Your task to perform on an android device: open app "Grab" (install if not already installed) Image 0: 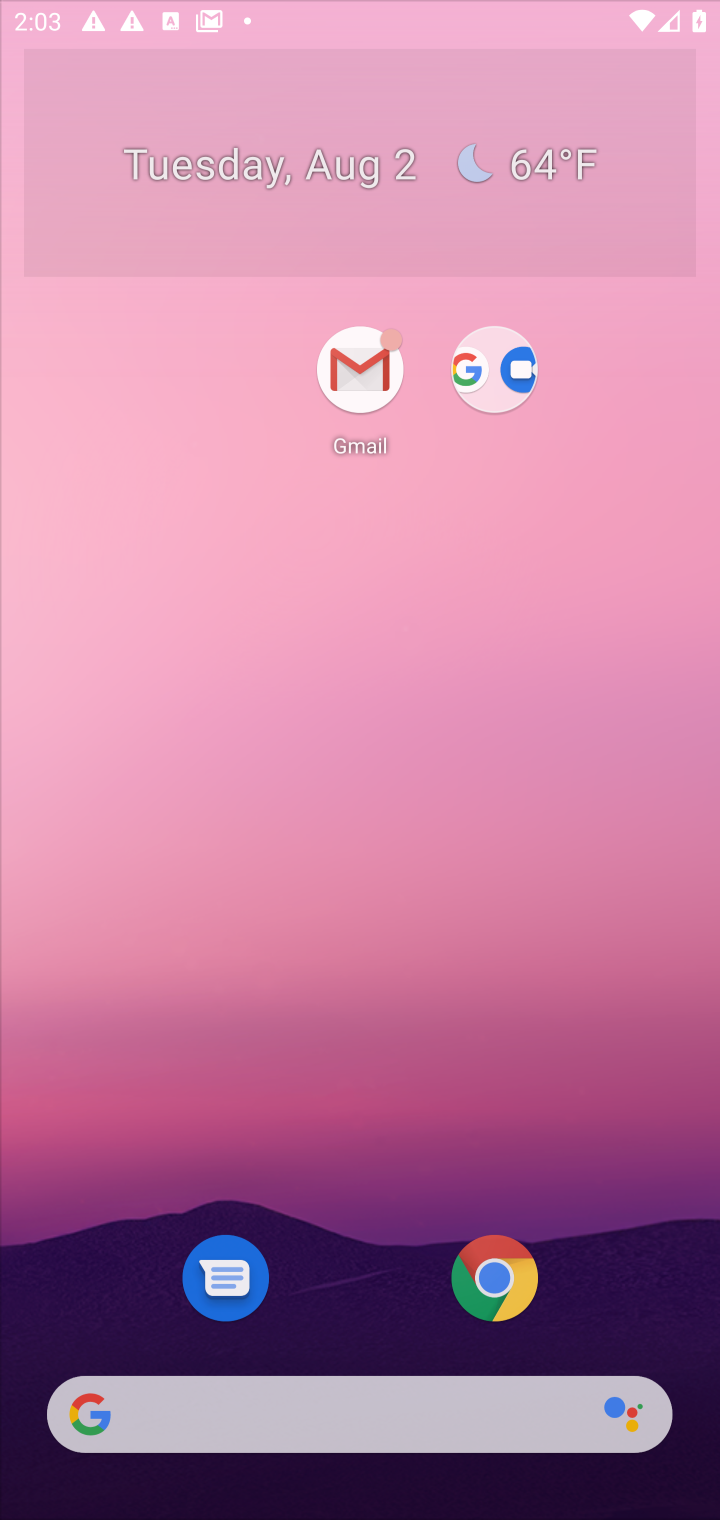
Step 0: press home button
Your task to perform on an android device: open app "Grab" (install if not already installed) Image 1: 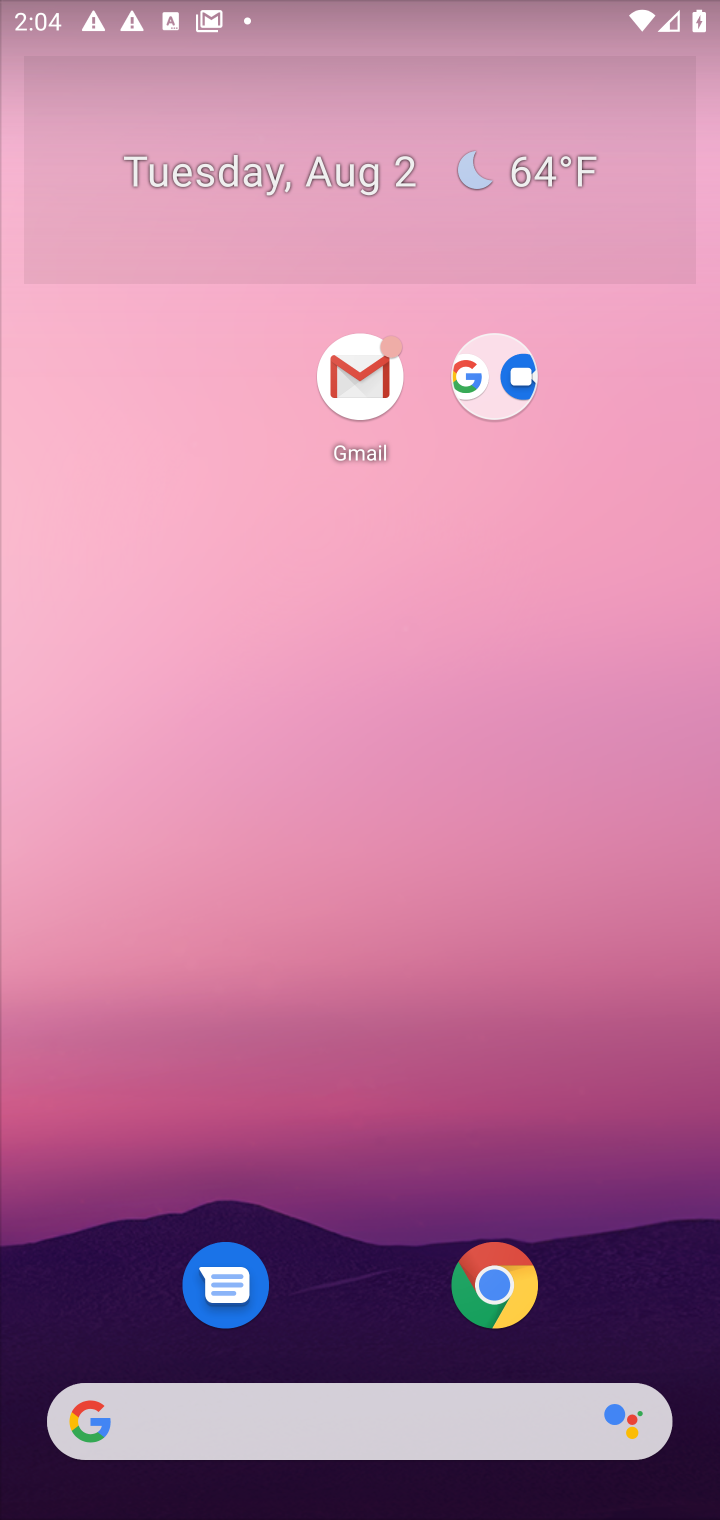
Step 1: click (456, 18)
Your task to perform on an android device: open app "Grab" (install if not already installed) Image 2: 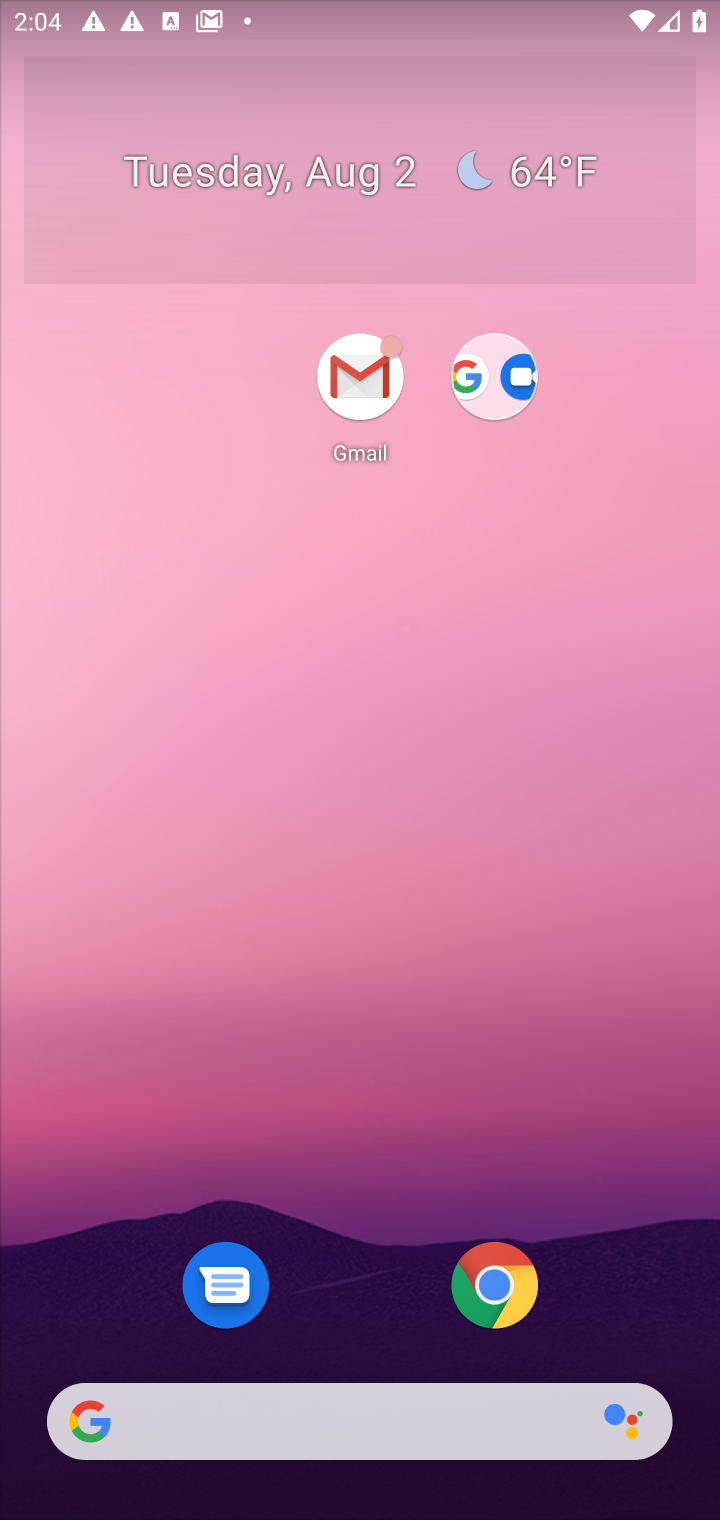
Step 2: drag from (409, 1105) to (405, 306)
Your task to perform on an android device: open app "Grab" (install if not already installed) Image 3: 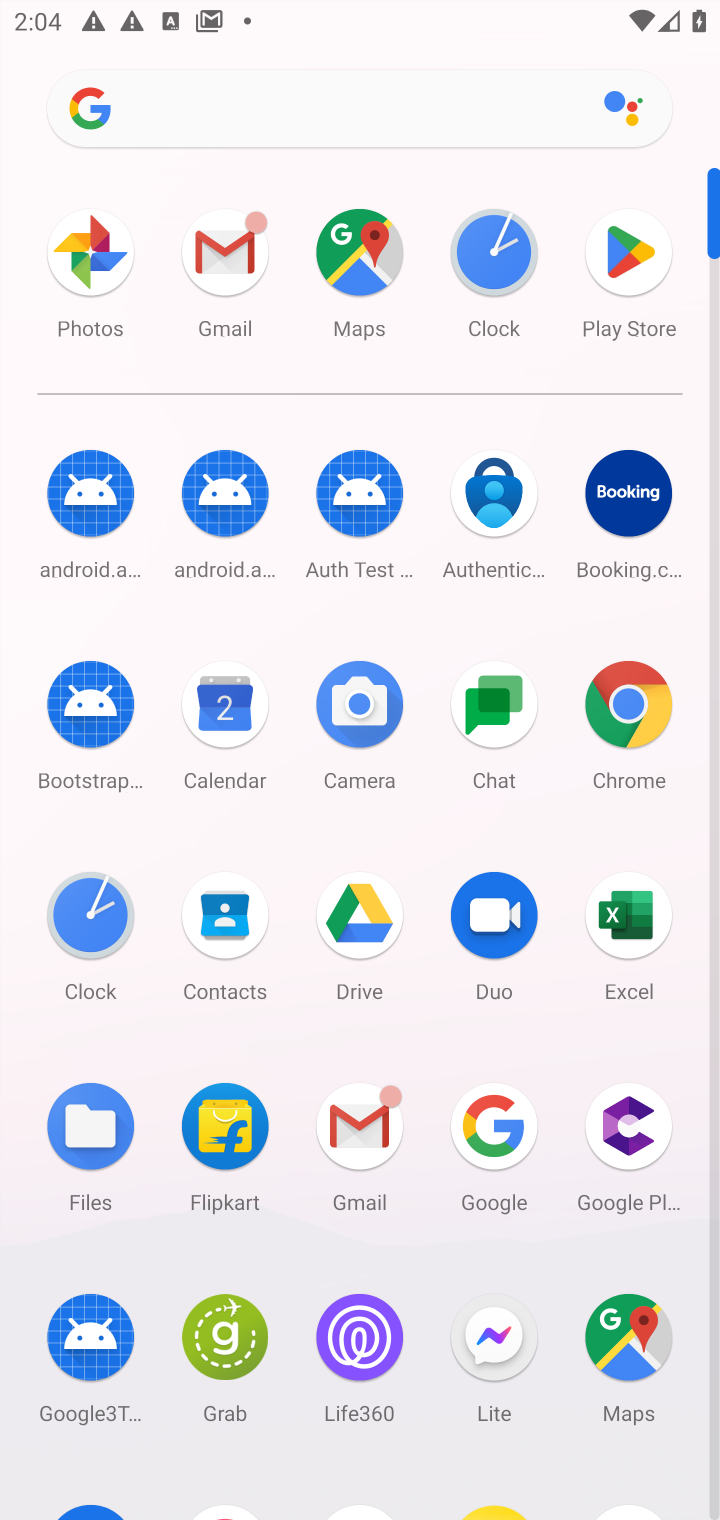
Step 3: drag from (409, 1241) to (409, 551)
Your task to perform on an android device: open app "Grab" (install if not already installed) Image 4: 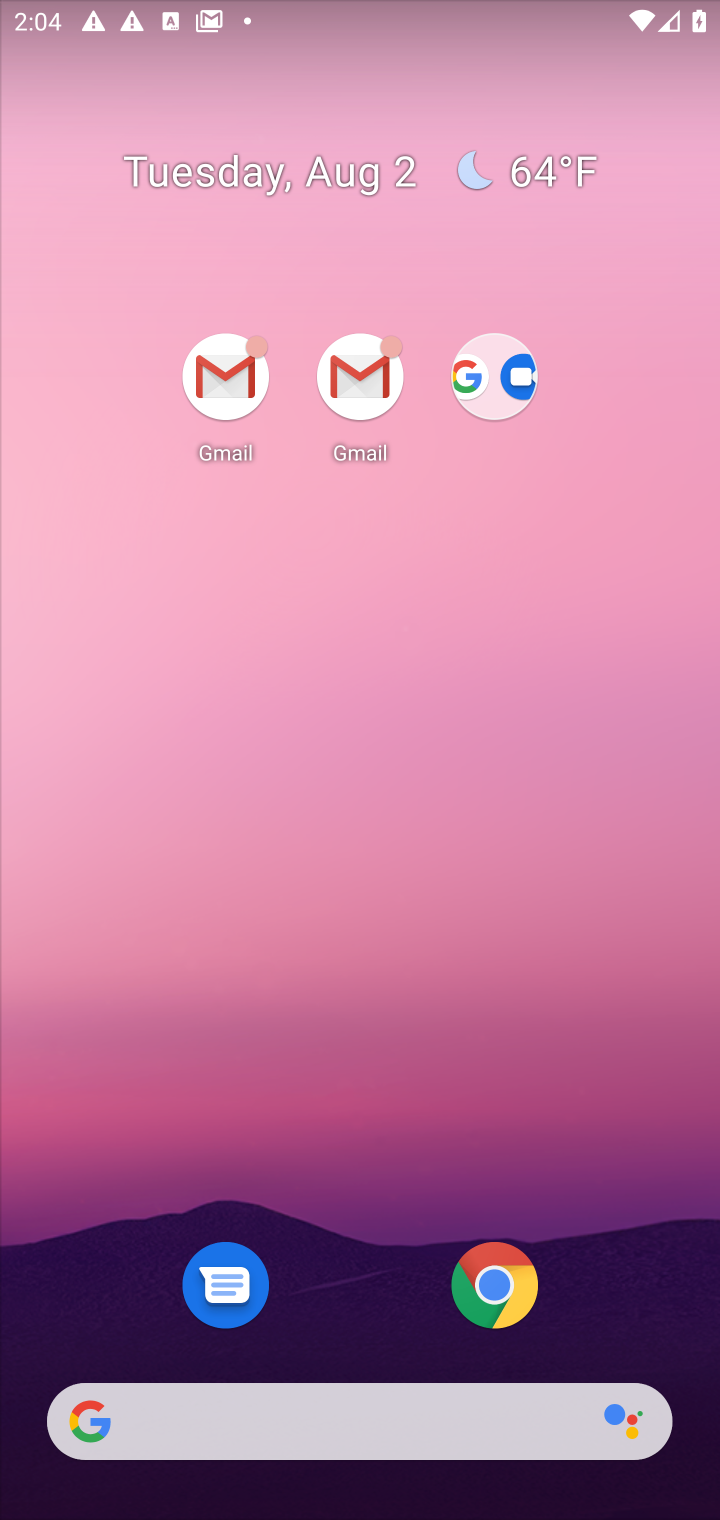
Step 4: drag from (463, 963) to (475, 50)
Your task to perform on an android device: open app "Grab" (install if not already installed) Image 5: 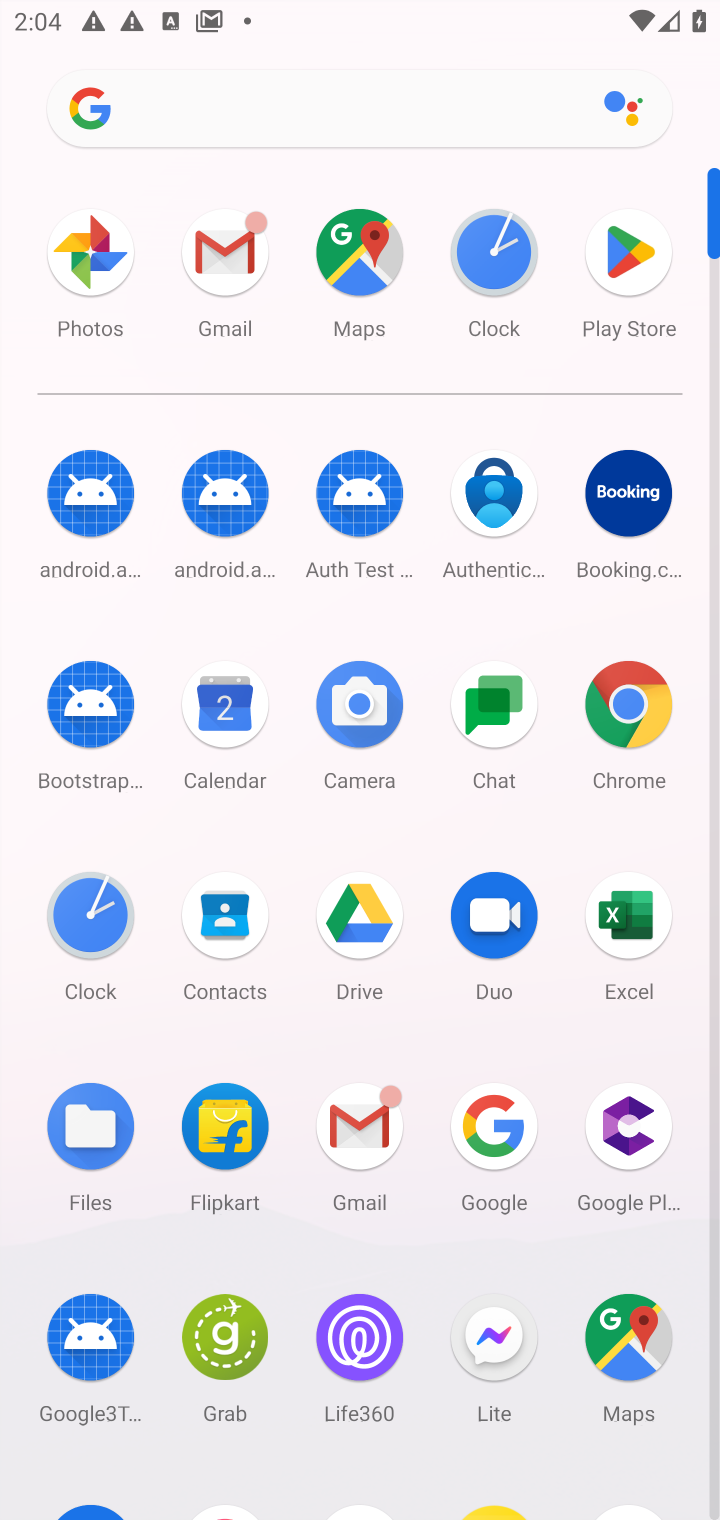
Step 5: drag from (451, 1046) to (406, 286)
Your task to perform on an android device: open app "Grab" (install if not already installed) Image 6: 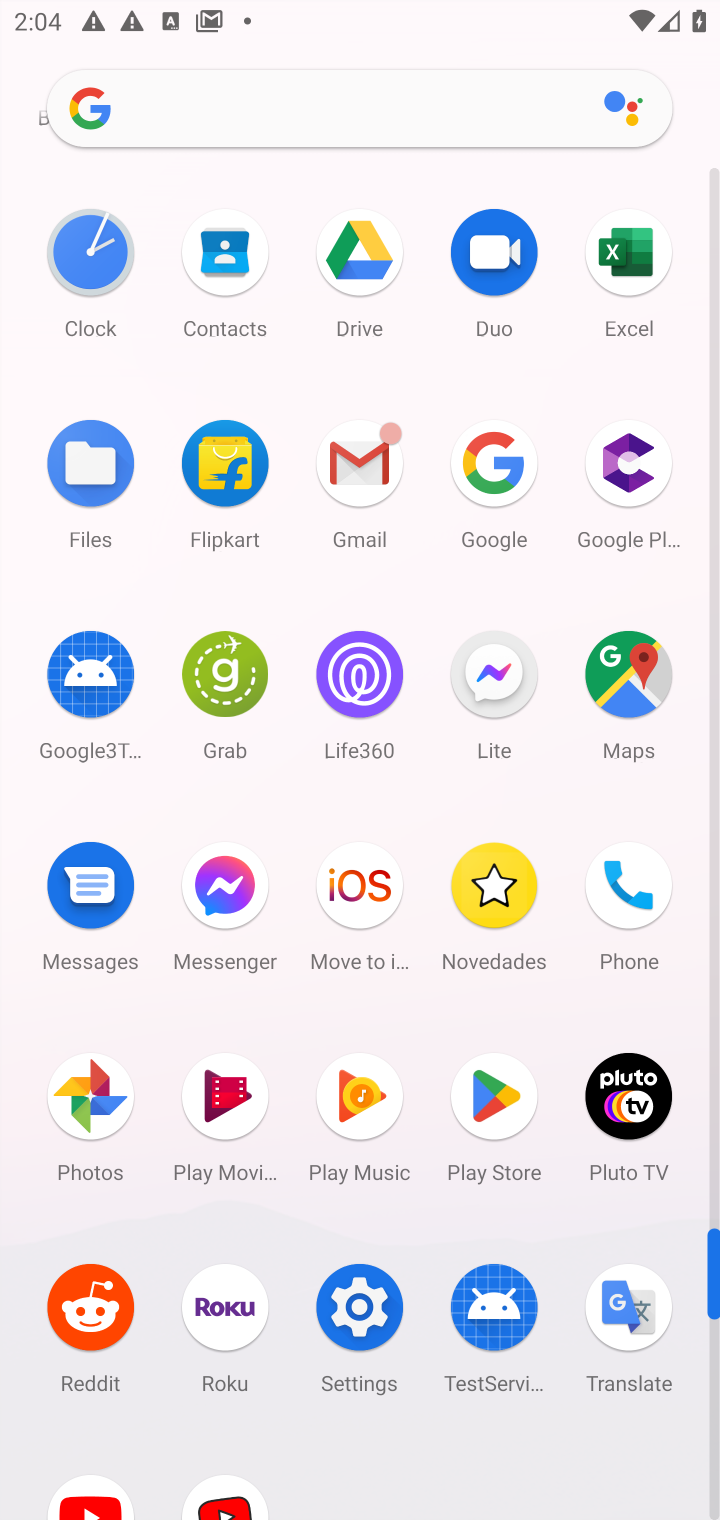
Step 6: click (483, 1097)
Your task to perform on an android device: open app "Grab" (install if not already installed) Image 7: 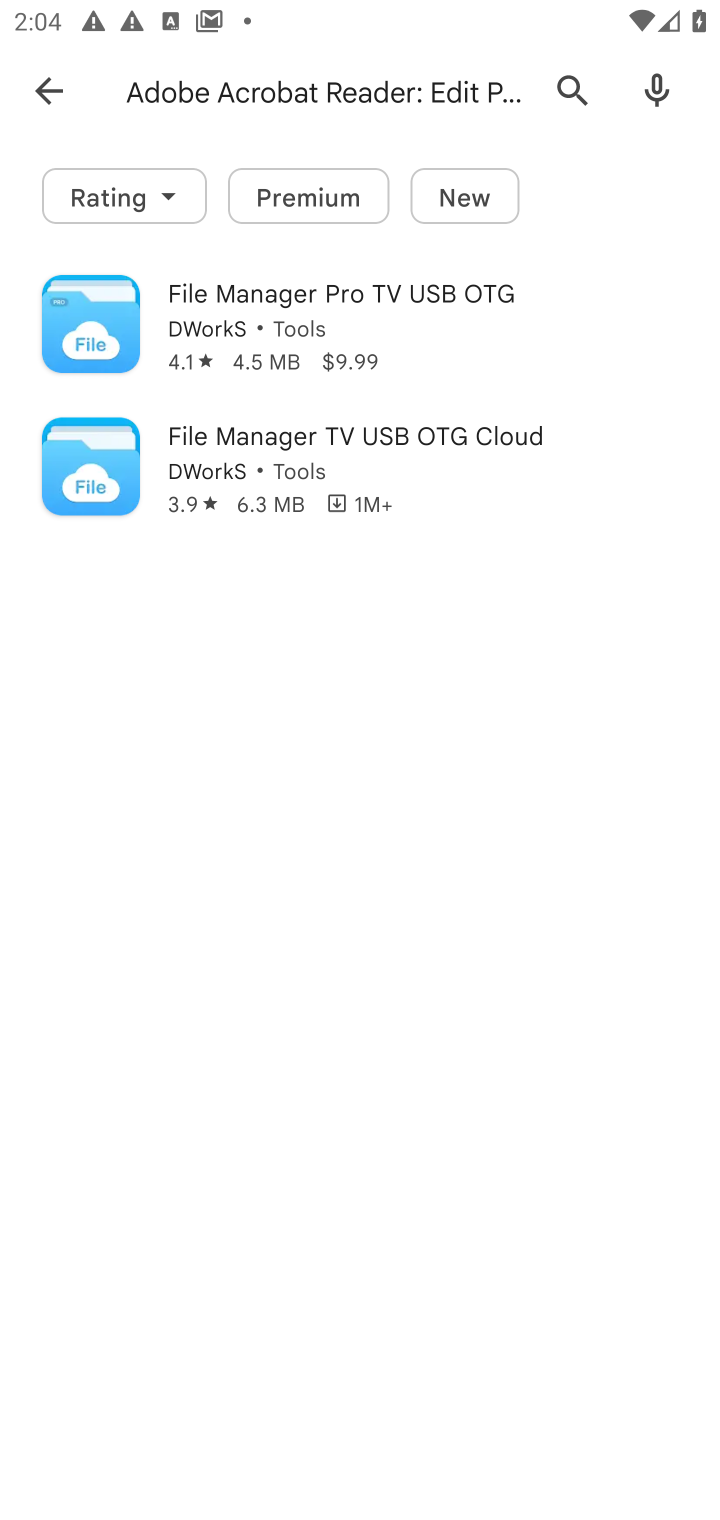
Step 7: click (447, 93)
Your task to perform on an android device: open app "Grab" (install if not already installed) Image 8: 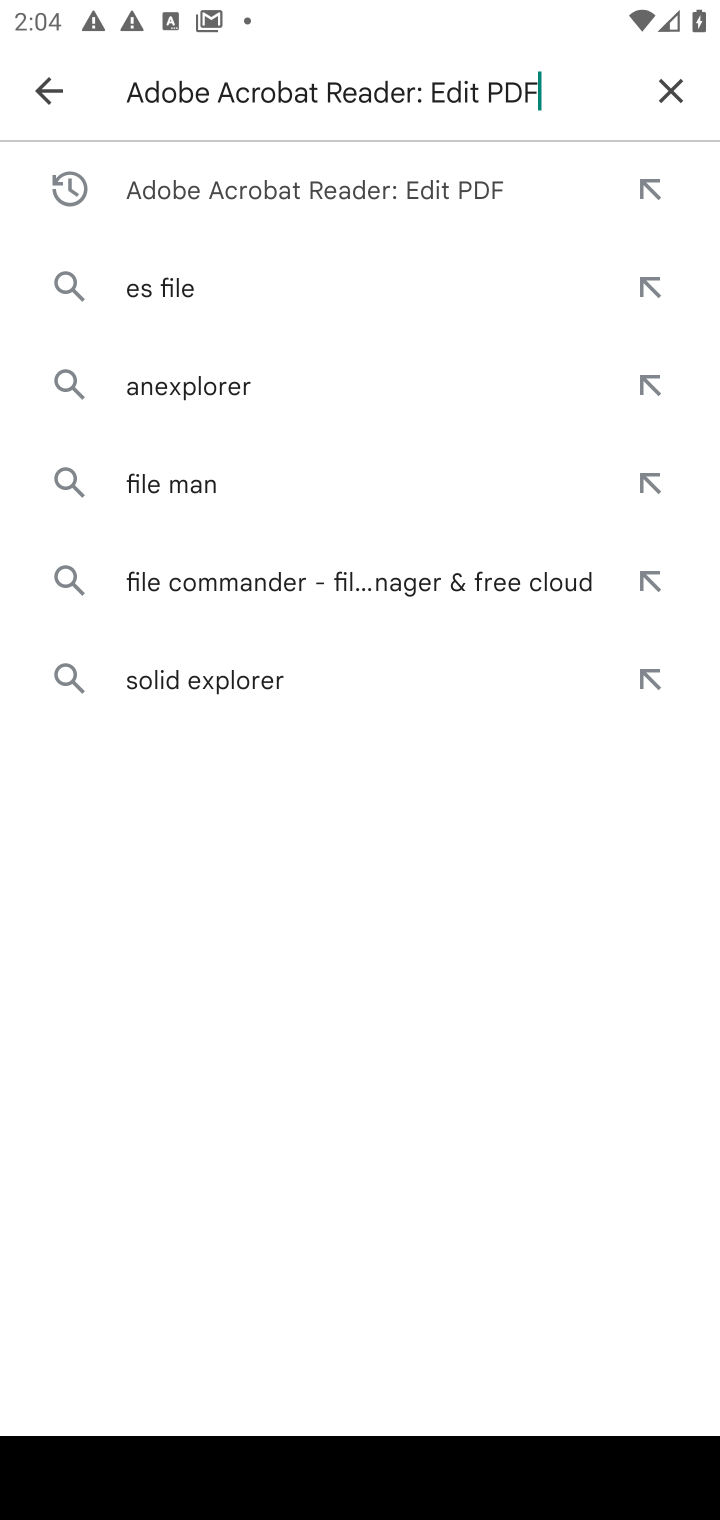
Step 8: click (660, 76)
Your task to perform on an android device: open app "Grab" (install if not already installed) Image 9: 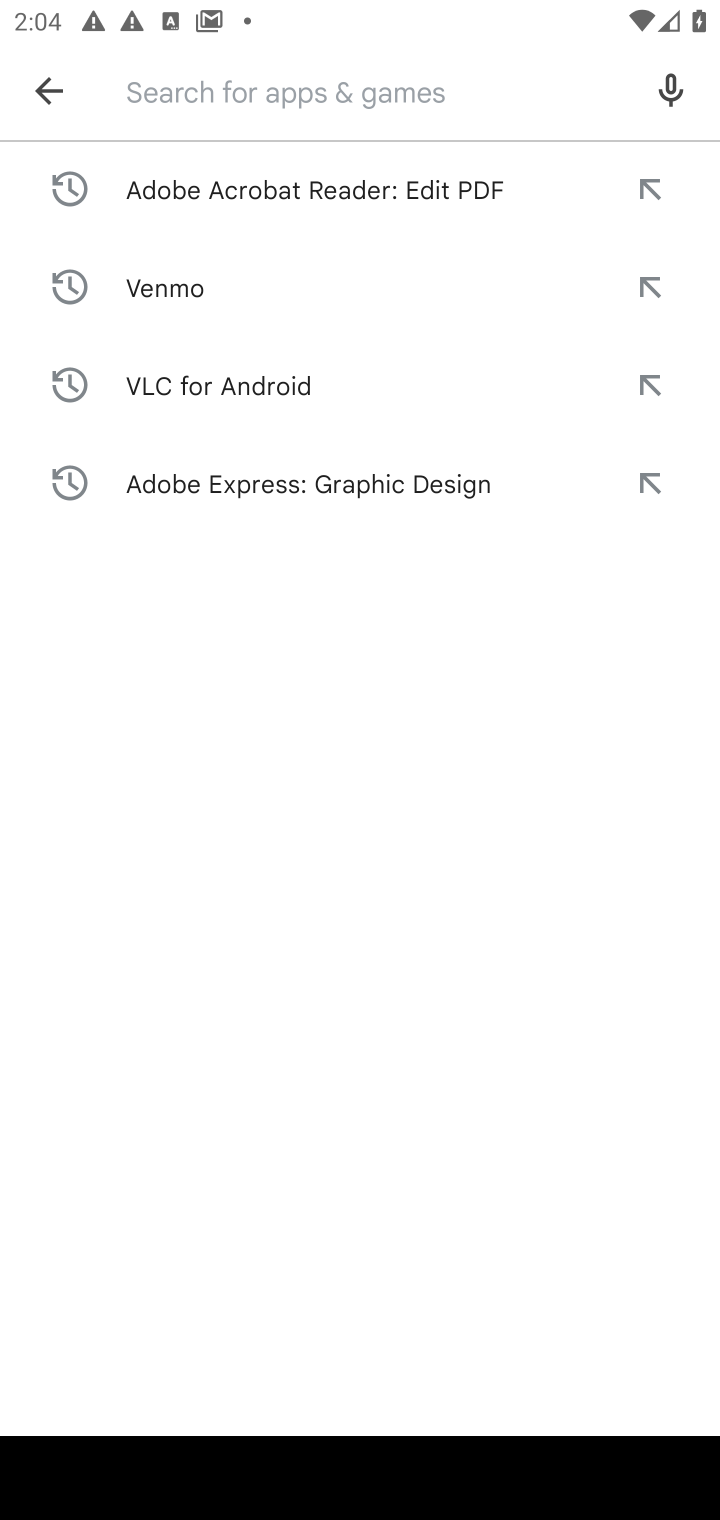
Step 9: type "Grab"
Your task to perform on an android device: open app "Grab" (install if not already installed) Image 10: 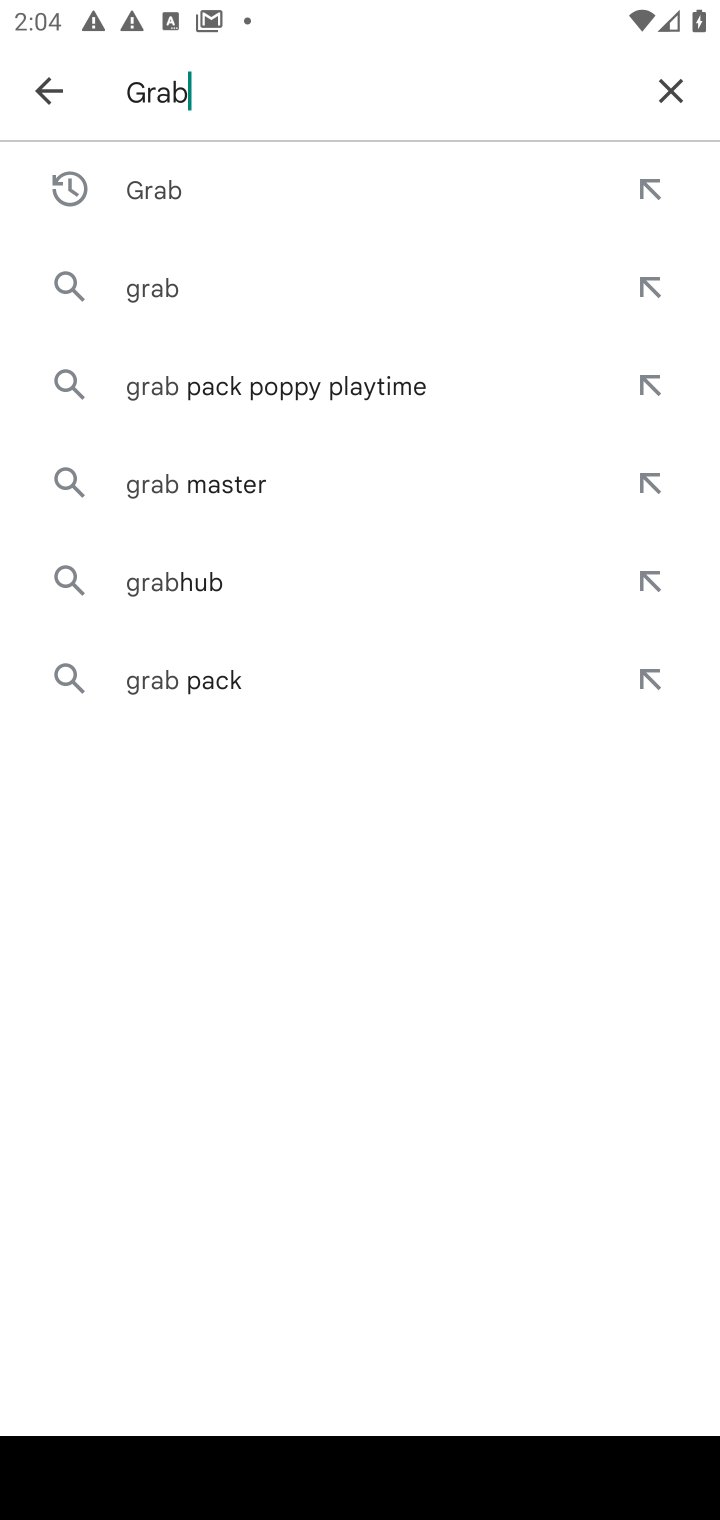
Step 10: press enter
Your task to perform on an android device: open app "Grab" (install if not already installed) Image 11: 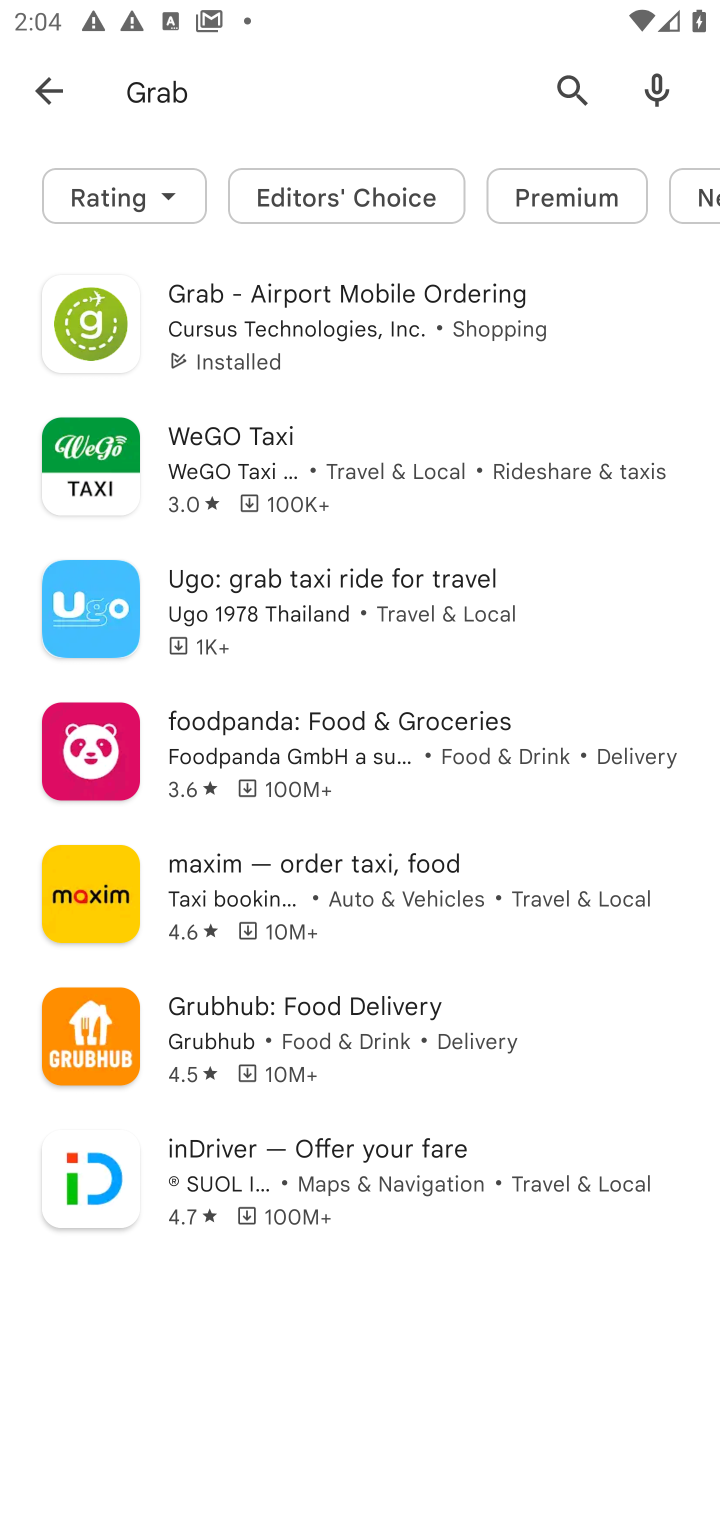
Step 11: click (232, 341)
Your task to perform on an android device: open app "Grab" (install if not already installed) Image 12: 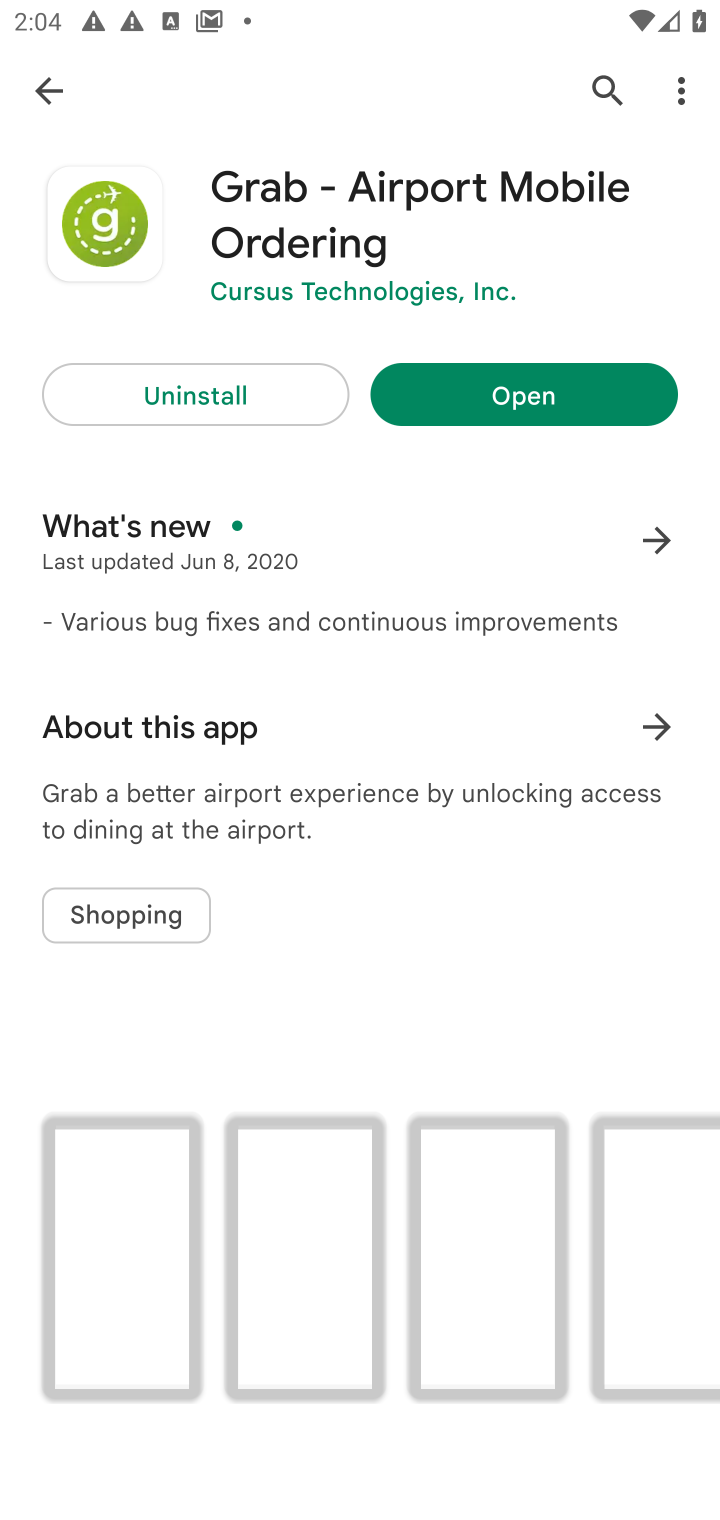
Step 12: click (137, 396)
Your task to perform on an android device: open app "Grab" (install if not already installed) Image 13: 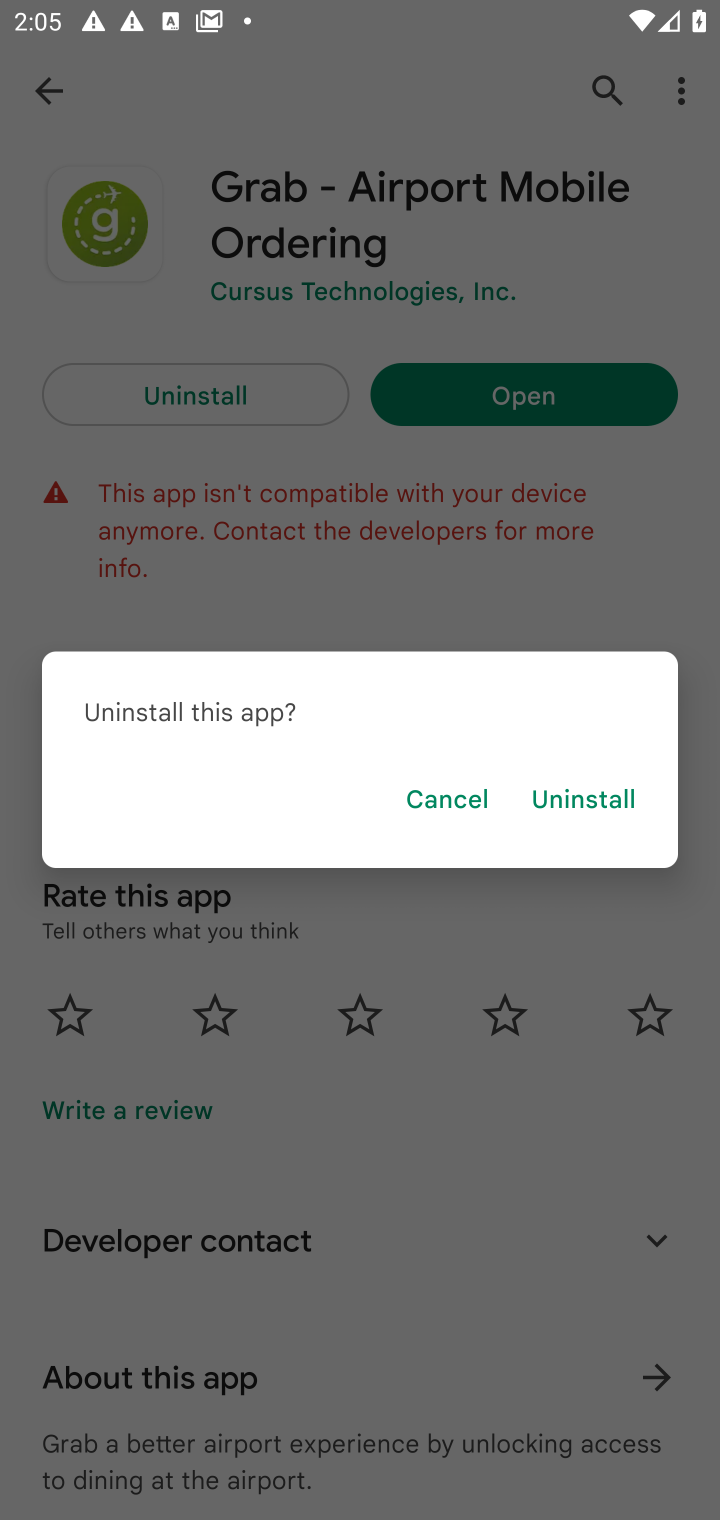
Step 13: click (444, 811)
Your task to perform on an android device: open app "Grab" (install if not already installed) Image 14: 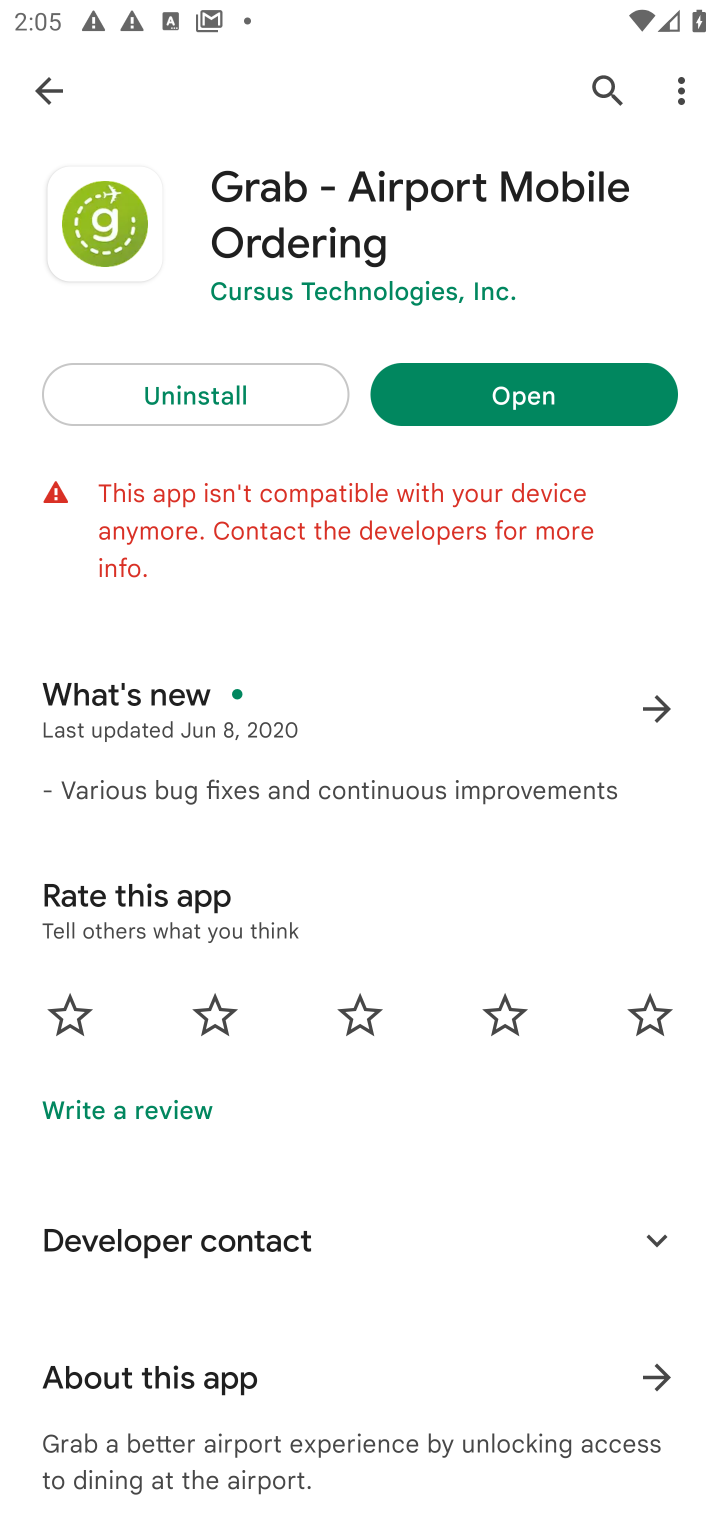
Step 14: click (499, 378)
Your task to perform on an android device: open app "Grab" (install if not already installed) Image 15: 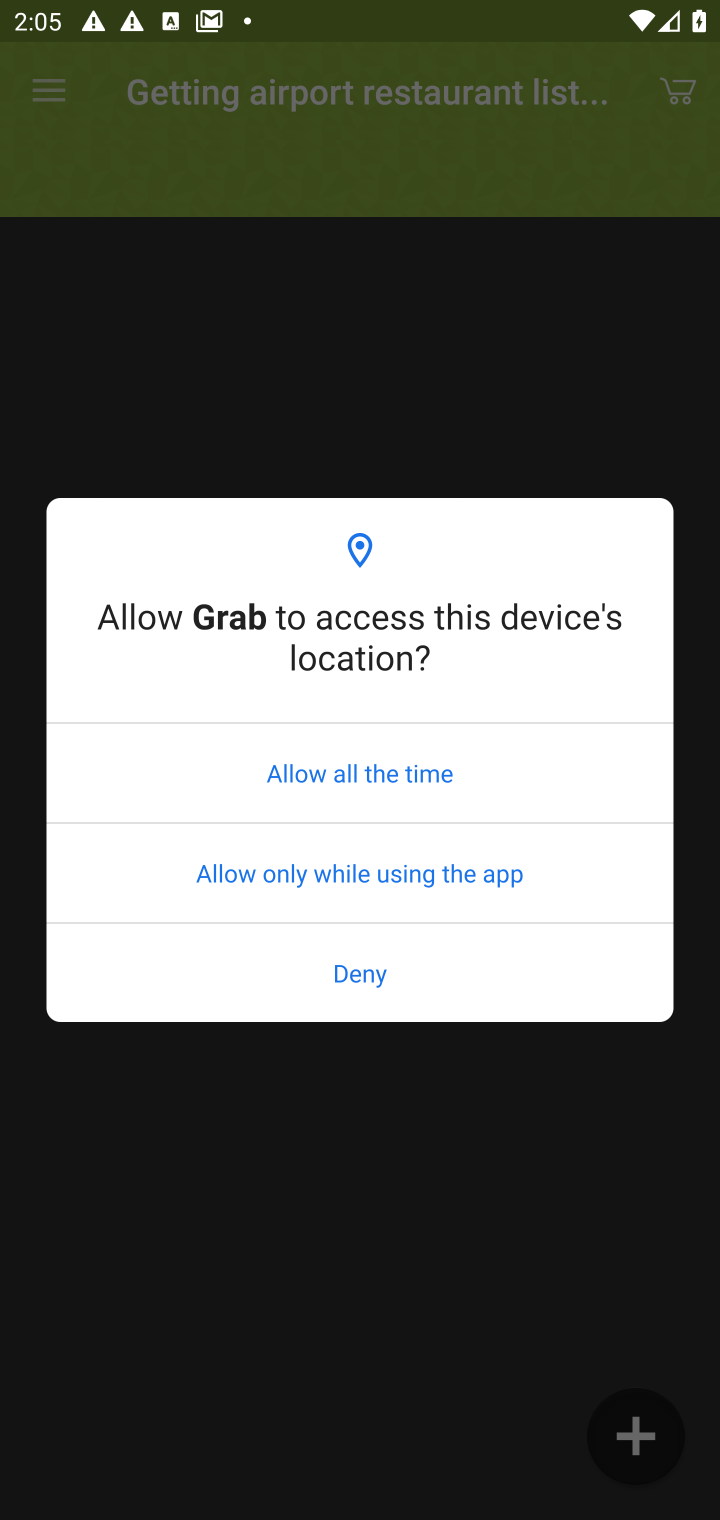
Step 15: task complete